Your task to perform on an android device: Search for razer huntsman on costco.com, select the first entry, and add it to the cart. Image 0: 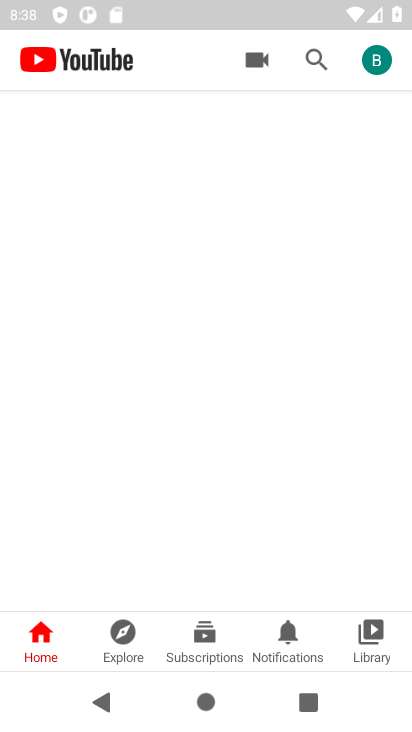
Step 0: press home button
Your task to perform on an android device: Search for razer huntsman on costco.com, select the first entry, and add it to the cart. Image 1: 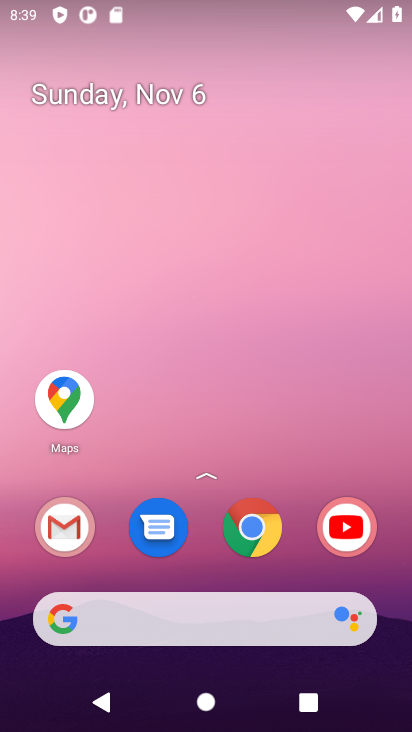
Step 1: click (251, 529)
Your task to perform on an android device: Search for razer huntsman on costco.com, select the first entry, and add it to the cart. Image 2: 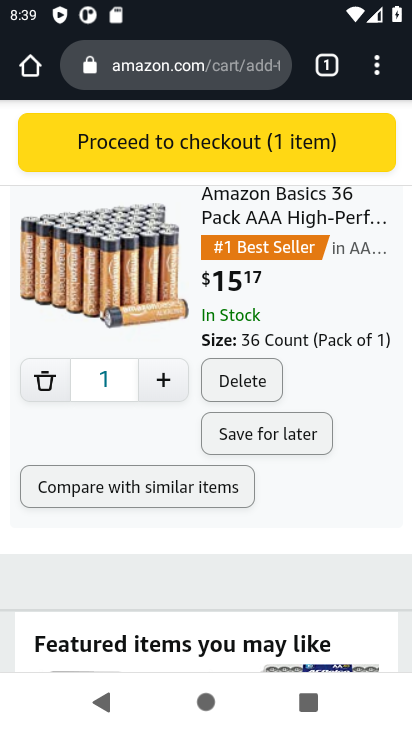
Step 2: drag from (202, 280) to (263, 702)
Your task to perform on an android device: Search for razer huntsman on costco.com, select the first entry, and add it to the cart. Image 3: 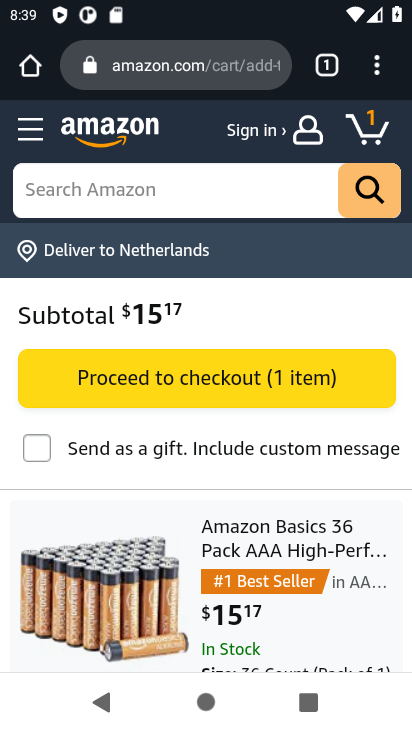
Step 3: click (326, 61)
Your task to perform on an android device: Search for razer huntsman on costco.com, select the first entry, and add it to the cart. Image 4: 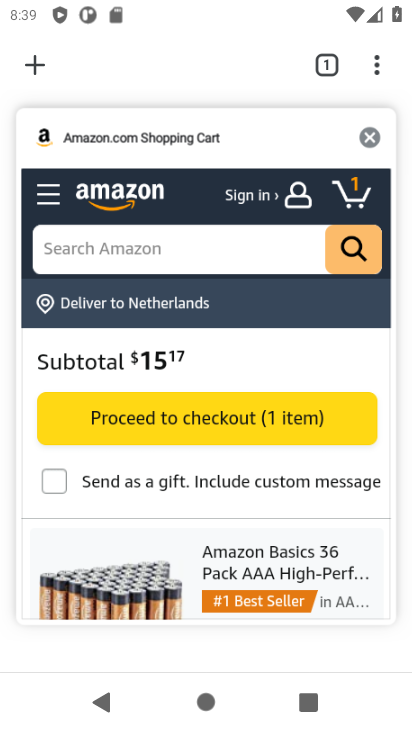
Step 4: click (31, 68)
Your task to perform on an android device: Search for razer huntsman on costco.com, select the first entry, and add it to the cart. Image 5: 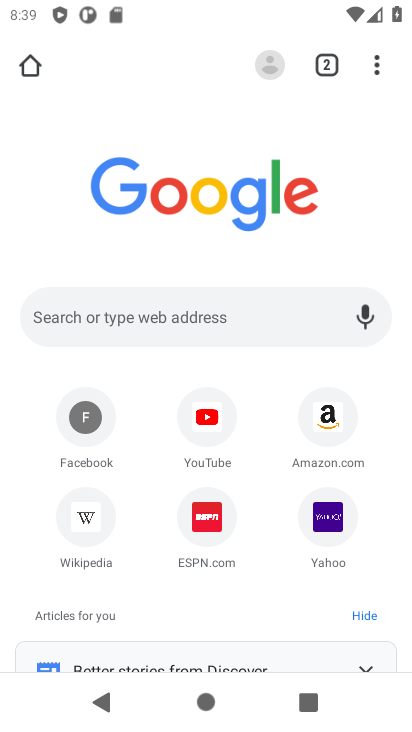
Step 5: click (153, 328)
Your task to perform on an android device: Search for razer huntsman on costco.com, select the first entry, and add it to the cart. Image 6: 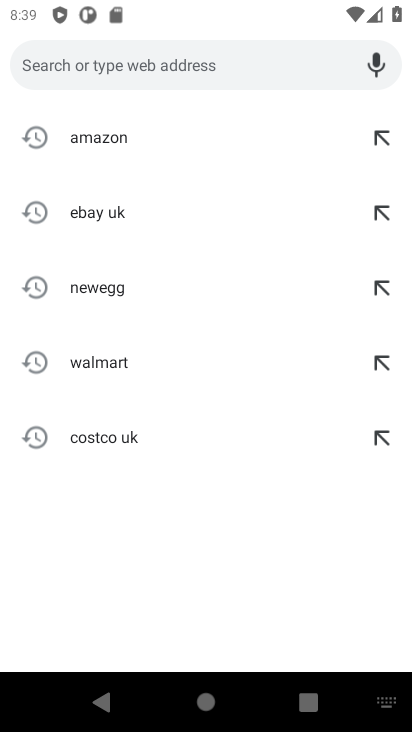
Step 6: type "costco"
Your task to perform on an android device: Search for razer huntsman on costco.com, select the first entry, and add it to the cart. Image 7: 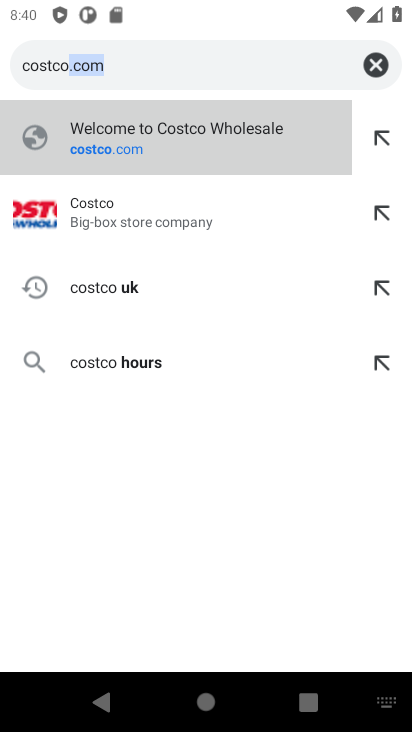
Step 7: click (173, 128)
Your task to perform on an android device: Search for razer huntsman on costco.com, select the first entry, and add it to the cart. Image 8: 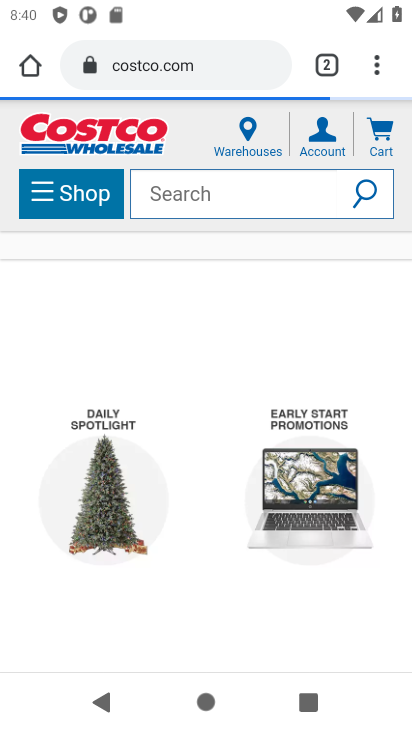
Step 8: click (219, 196)
Your task to perform on an android device: Search for razer huntsman on costco.com, select the first entry, and add it to the cart. Image 9: 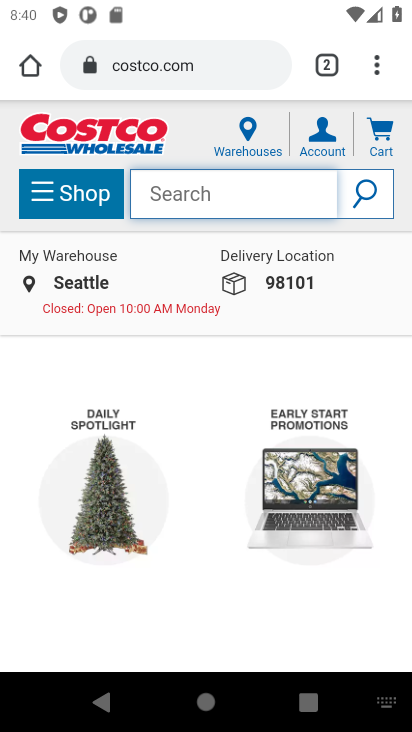
Step 9: type "razer huntsman"
Your task to perform on an android device: Search for razer huntsman on costco.com, select the first entry, and add it to the cart. Image 10: 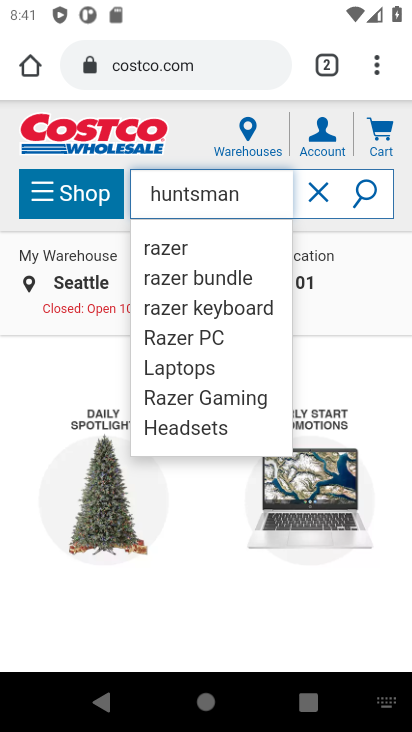
Step 10: click (171, 250)
Your task to perform on an android device: Search for razer huntsman on costco.com, select the first entry, and add it to the cart. Image 11: 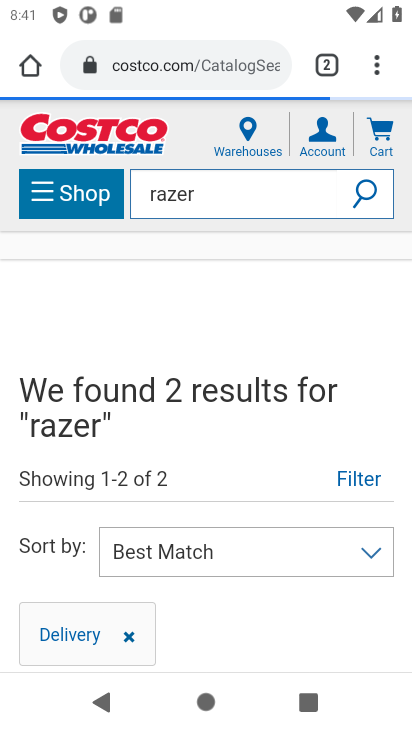
Step 11: drag from (198, 644) to (275, 131)
Your task to perform on an android device: Search for razer huntsman on costco.com, select the first entry, and add it to the cart. Image 12: 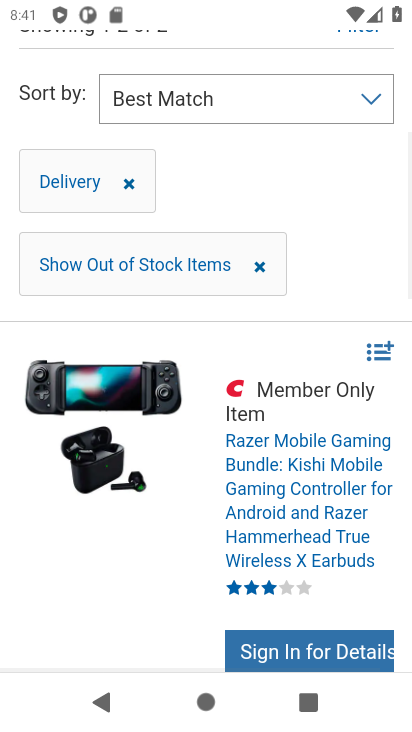
Step 12: drag from (193, 617) to (251, 213)
Your task to perform on an android device: Search for razer huntsman on costco.com, select the first entry, and add it to the cart. Image 13: 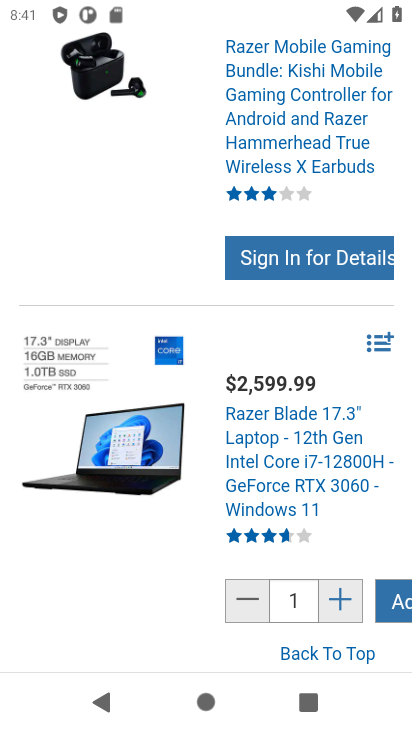
Step 13: drag from (169, 352) to (204, 693)
Your task to perform on an android device: Search for razer huntsman on costco.com, select the first entry, and add it to the cart. Image 14: 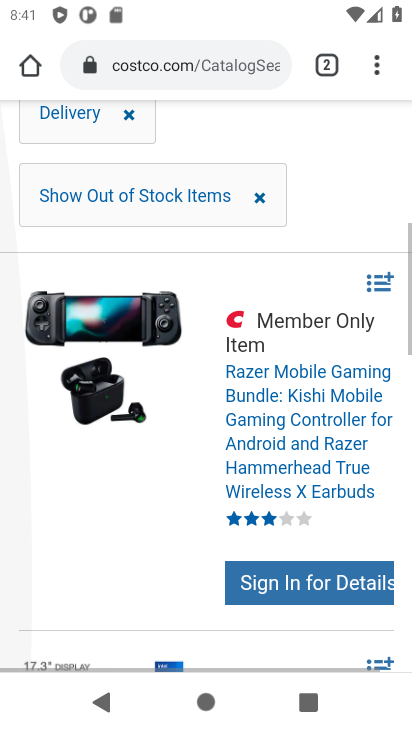
Step 14: drag from (245, 340) to (189, 715)
Your task to perform on an android device: Search for razer huntsman on costco.com, select the first entry, and add it to the cart. Image 15: 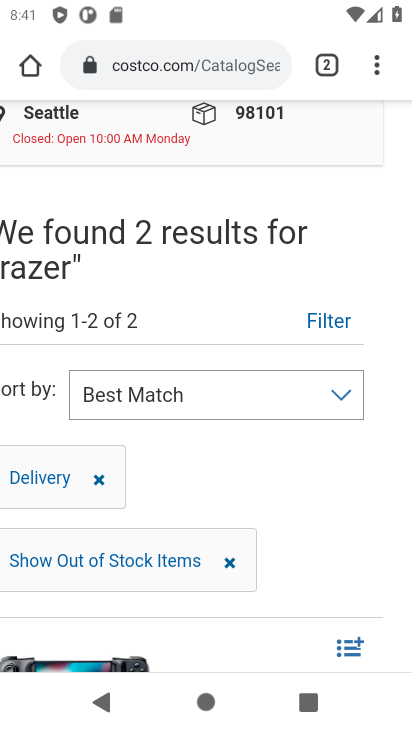
Step 15: drag from (281, 167) to (310, 653)
Your task to perform on an android device: Search for razer huntsman on costco.com, select the first entry, and add it to the cart. Image 16: 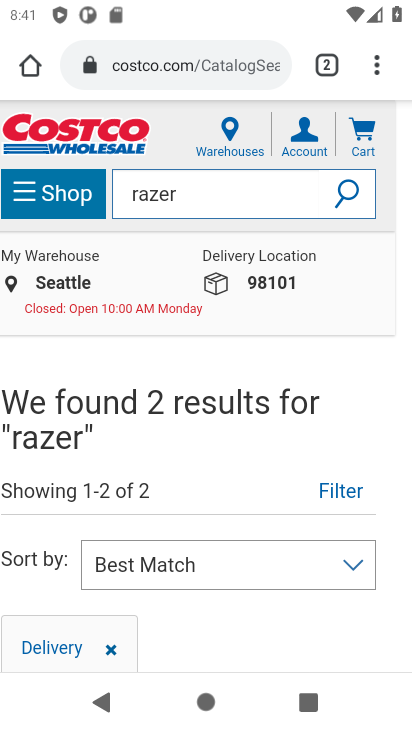
Step 16: click (200, 187)
Your task to perform on an android device: Search for razer huntsman on costco.com, select the first entry, and add it to the cart. Image 17: 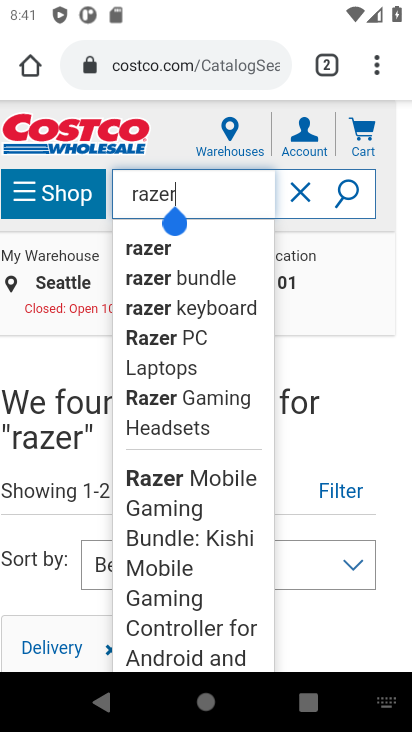
Step 17: click (294, 194)
Your task to perform on an android device: Search for razer huntsman on costco.com, select the first entry, and add it to the cart. Image 18: 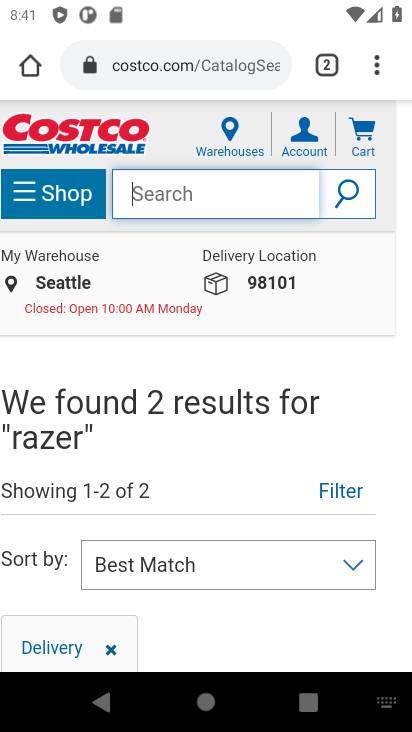
Step 18: click (188, 194)
Your task to perform on an android device: Search for razer huntsman on costco.com, select the first entry, and add it to the cart. Image 19: 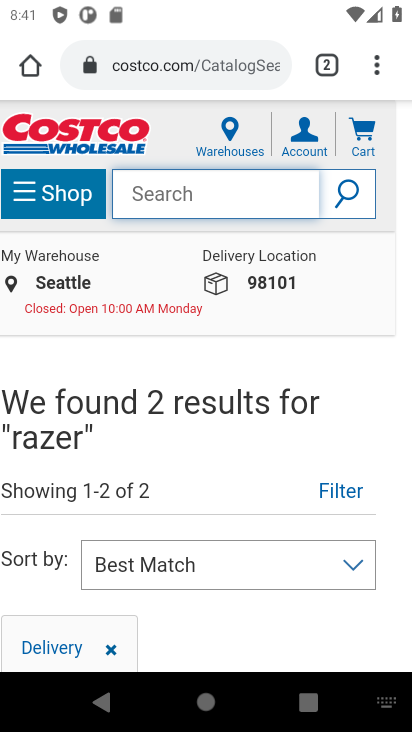
Step 19: type "razer huntsman"
Your task to perform on an android device: Search for razer huntsman on costco.com, select the first entry, and add it to the cart. Image 20: 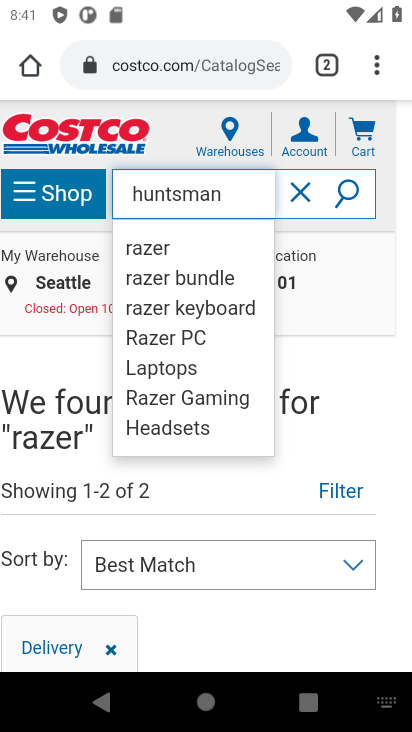
Step 20: click (198, 239)
Your task to perform on an android device: Search for razer huntsman on costco.com, select the first entry, and add it to the cart. Image 21: 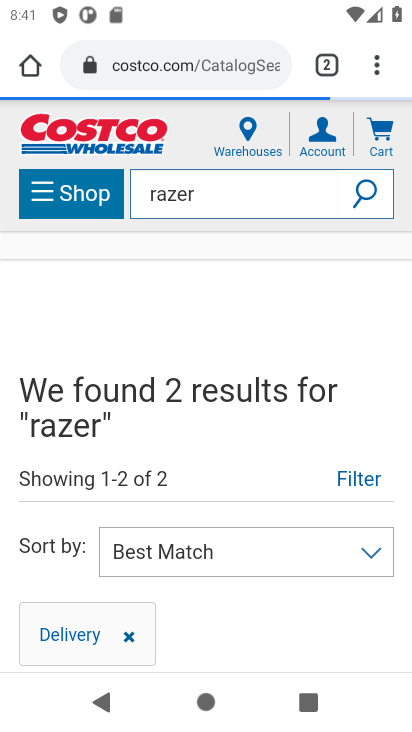
Step 21: task complete